Your task to perform on an android device: Open settings Image 0: 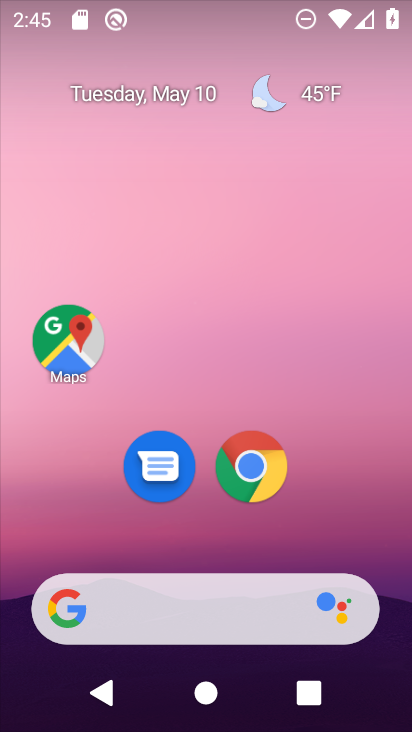
Step 0: drag from (329, 539) to (352, 3)
Your task to perform on an android device: Open settings Image 1: 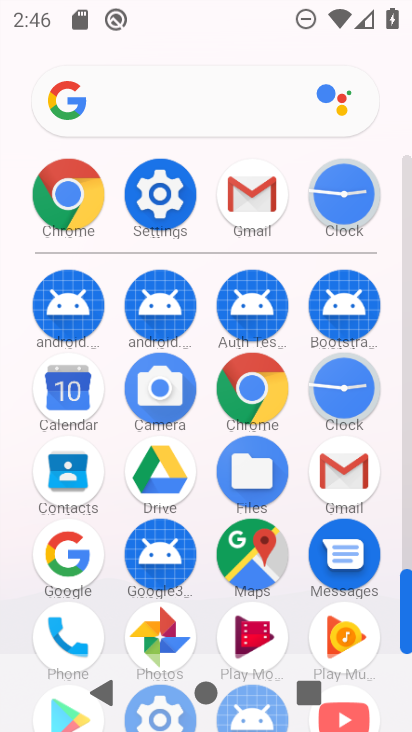
Step 1: click (153, 193)
Your task to perform on an android device: Open settings Image 2: 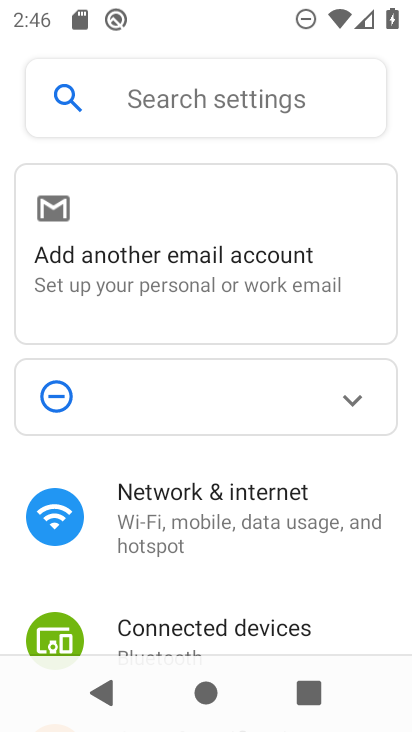
Step 2: task complete